Your task to perform on an android device: see tabs open on other devices in the chrome app Image 0: 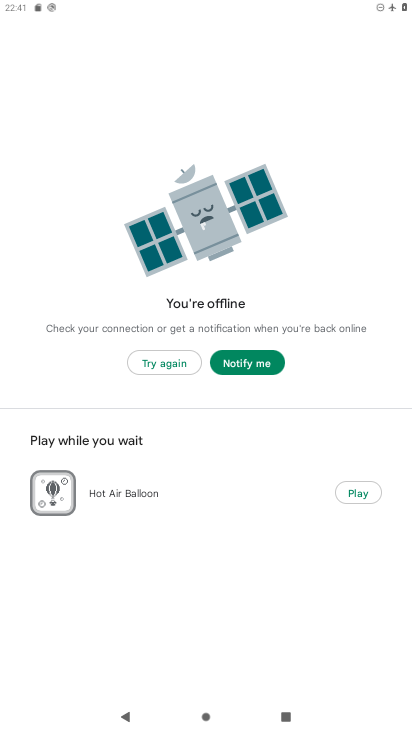
Step 0: press home button
Your task to perform on an android device: see tabs open on other devices in the chrome app Image 1: 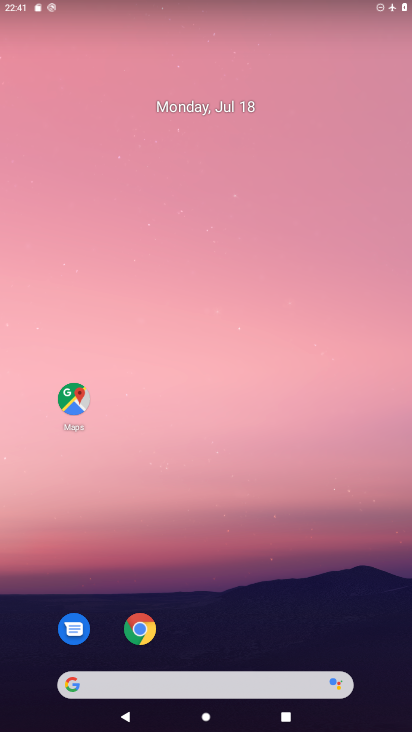
Step 1: drag from (280, 480) to (207, 97)
Your task to perform on an android device: see tabs open on other devices in the chrome app Image 2: 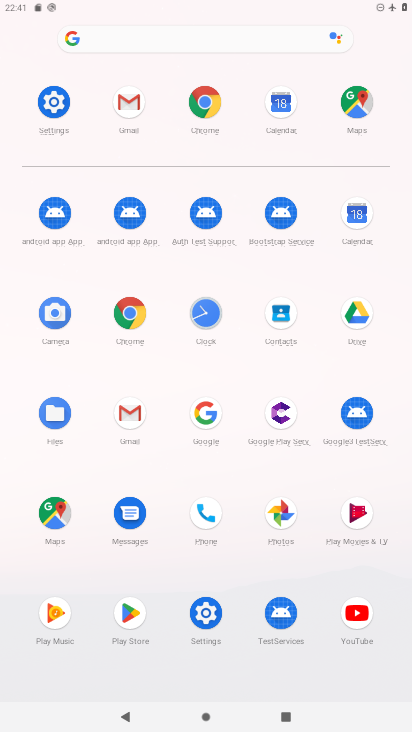
Step 2: click (131, 311)
Your task to perform on an android device: see tabs open on other devices in the chrome app Image 3: 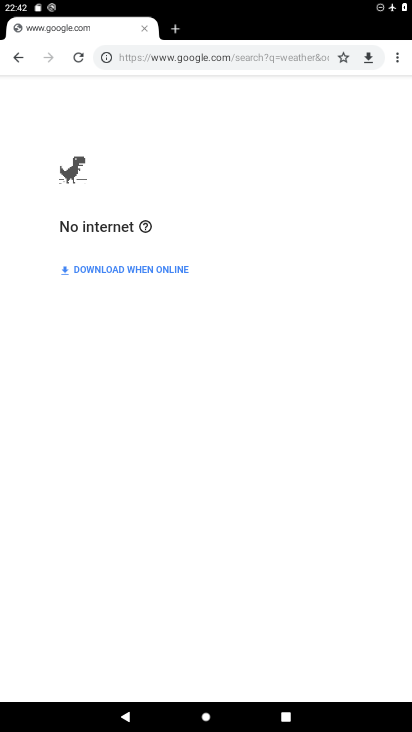
Step 3: task complete